Your task to perform on an android device: allow notifications from all sites in the chrome app Image 0: 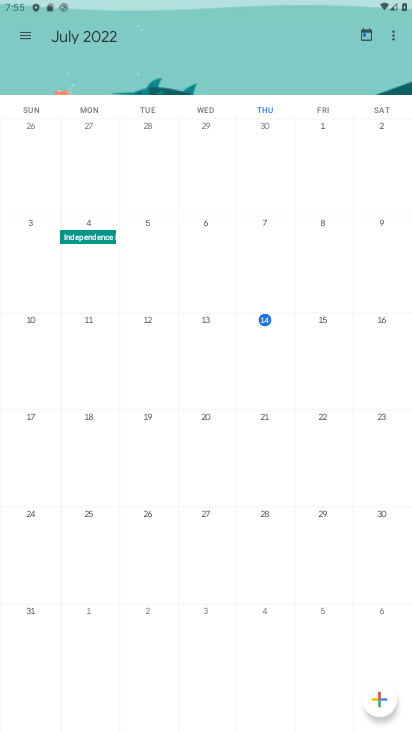
Step 0: press home button
Your task to perform on an android device: allow notifications from all sites in the chrome app Image 1: 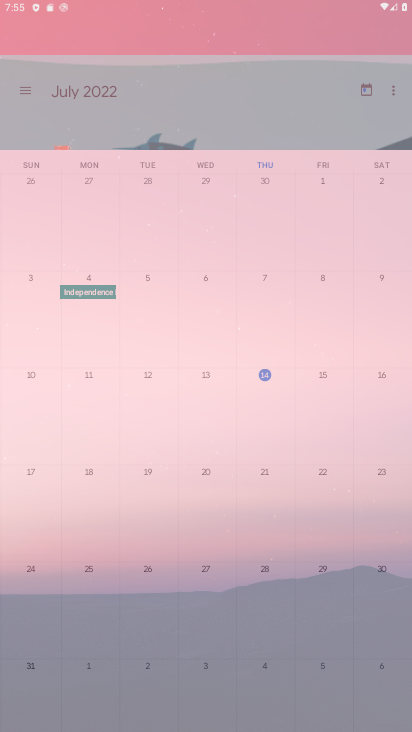
Step 1: press home button
Your task to perform on an android device: allow notifications from all sites in the chrome app Image 2: 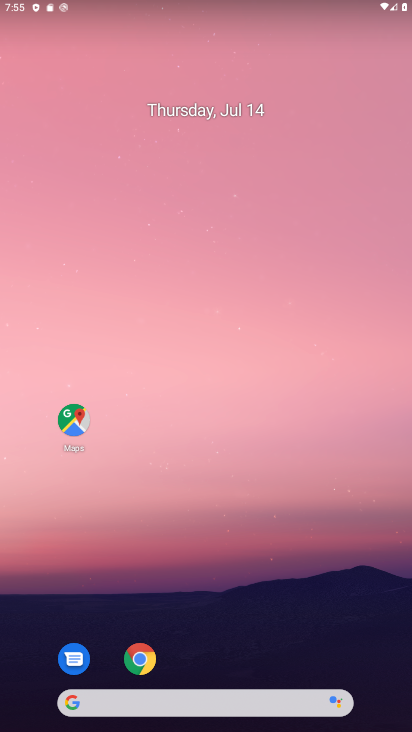
Step 2: click (131, 672)
Your task to perform on an android device: allow notifications from all sites in the chrome app Image 3: 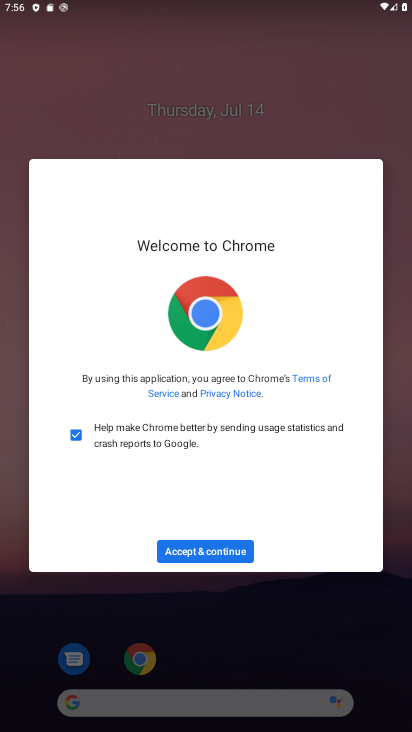
Step 3: click (176, 546)
Your task to perform on an android device: allow notifications from all sites in the chrome app Image 4: 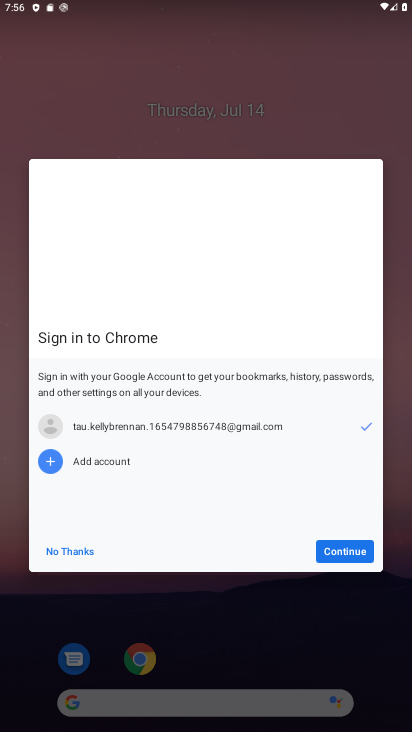
Step 4: click (331, 549)
Your task to perform on an android device: allow notifications from all sites in the chrome app Image 5: 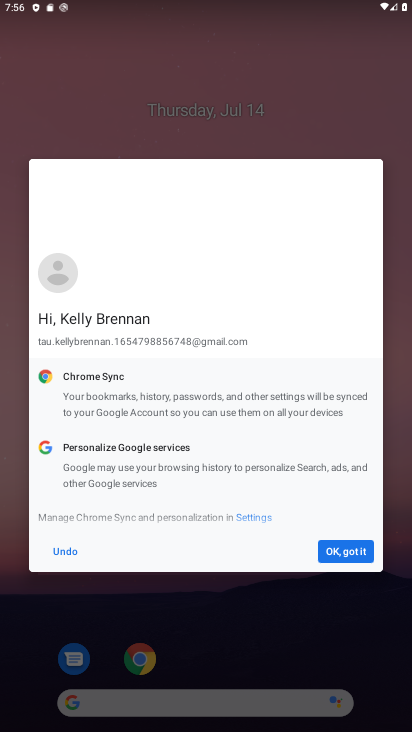
Step 5: click (331, 549)
Your task to perform on an android device: allow notifications from all sites in the chrome app Image 6: 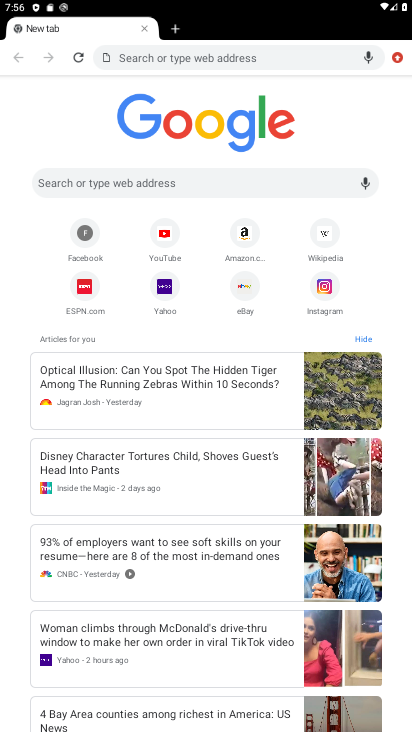
Step 6: click (394, 51)
Your task to perform on an android device: allow notifications from all sites in the chrome app Image 7: 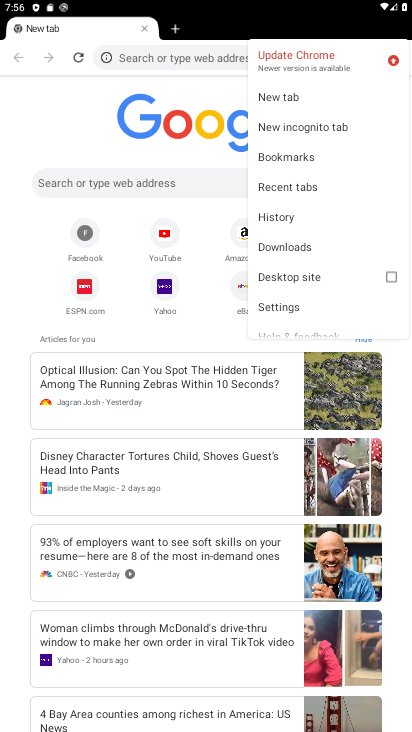
Step 7: click (284, 307)
Your task to perform on an android device: allow notifications from all sites in the chrome app Image 8: 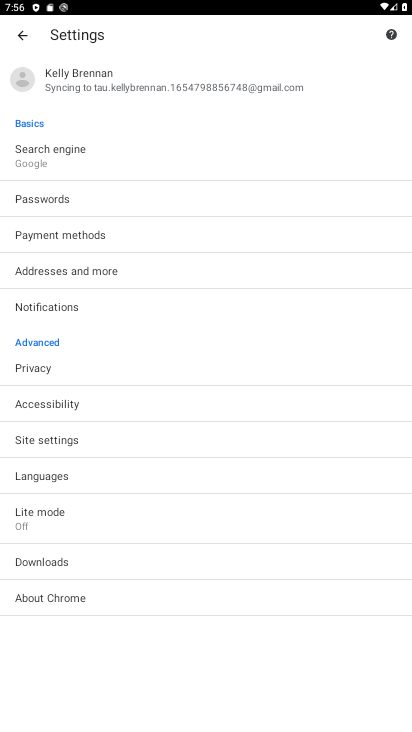
Step 8: click (71, 307)
Your task to perform on an android device: allow notifications from all sites in the chrome app Image 9: 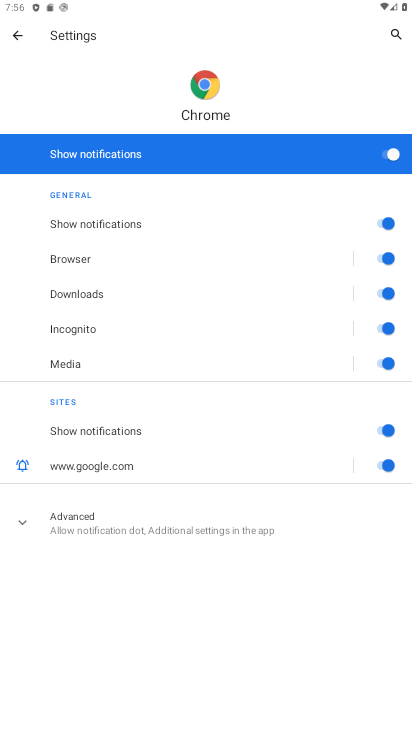
Step 9: task complete